Your task to perform on an android device: make emails show in primary in the gmail app Image 0: 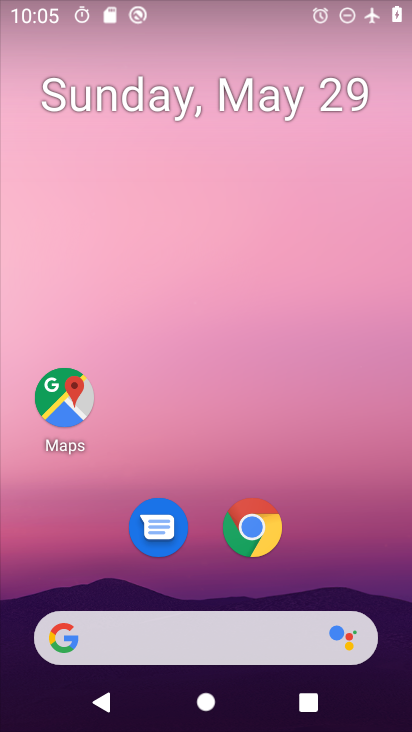
Step 0: drag from (385, 641) to (250, 19)
Your task to perform on an android device: make emails show in primary in the gmail app Image 1: 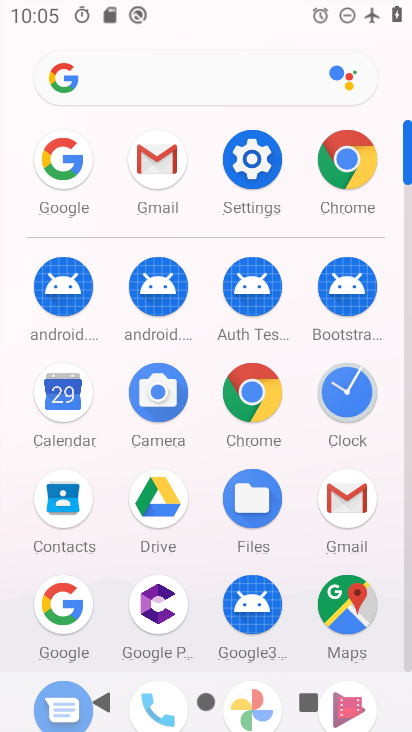
Step 1: click (363, 521)
Your task to perform on an android device: make emails show in primary in the gmail app Image 2: 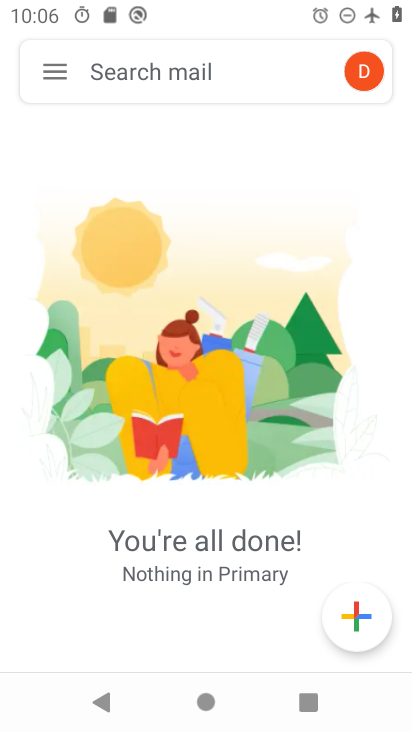
Step 2: task complete